Your task to perform on an android device: Search for custom made wallets on etsy.com Image 0: 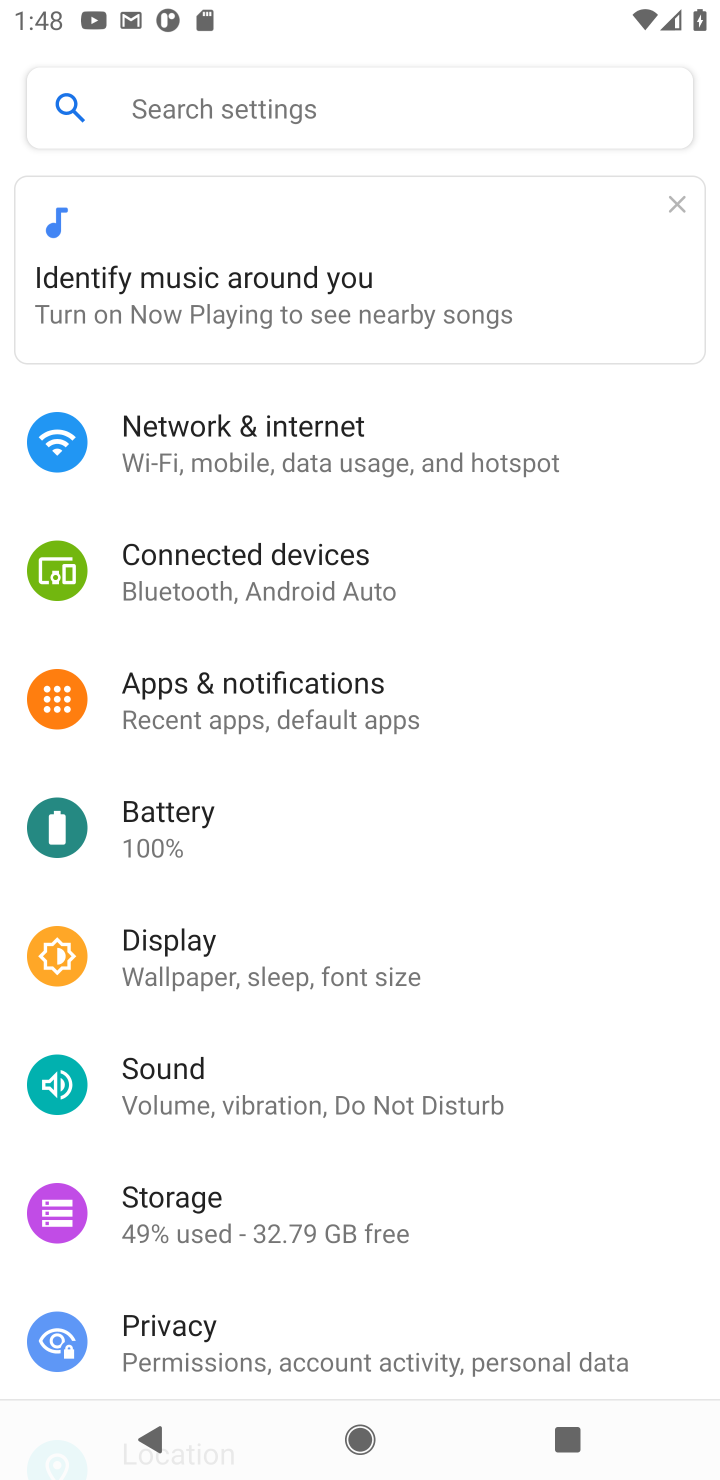
Step 0: click (213, 829)
Your task to perform on an android device: Search for custom made wallets on etsy.com Image 1: 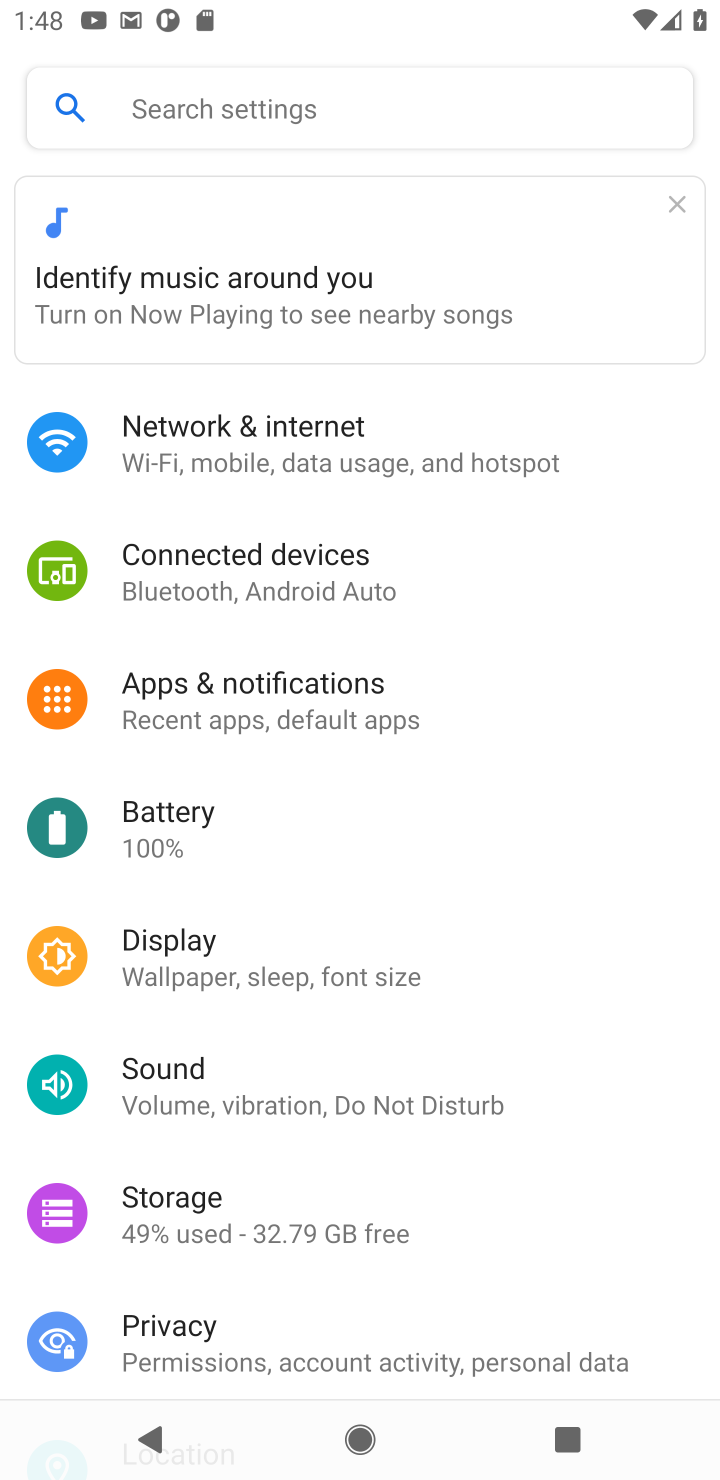
Step 1: task complete